Your task to perform on an android device: Search for seafood restaurants on Google Maps Image 0: 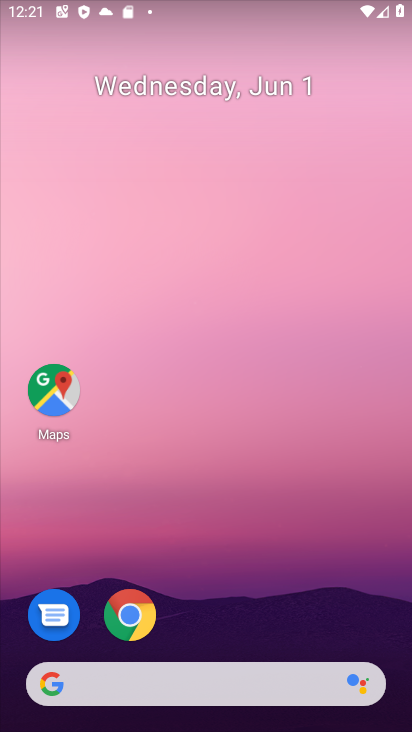
Step 0: task complete